Your task to perform on an android device: Open display settings Image 0: 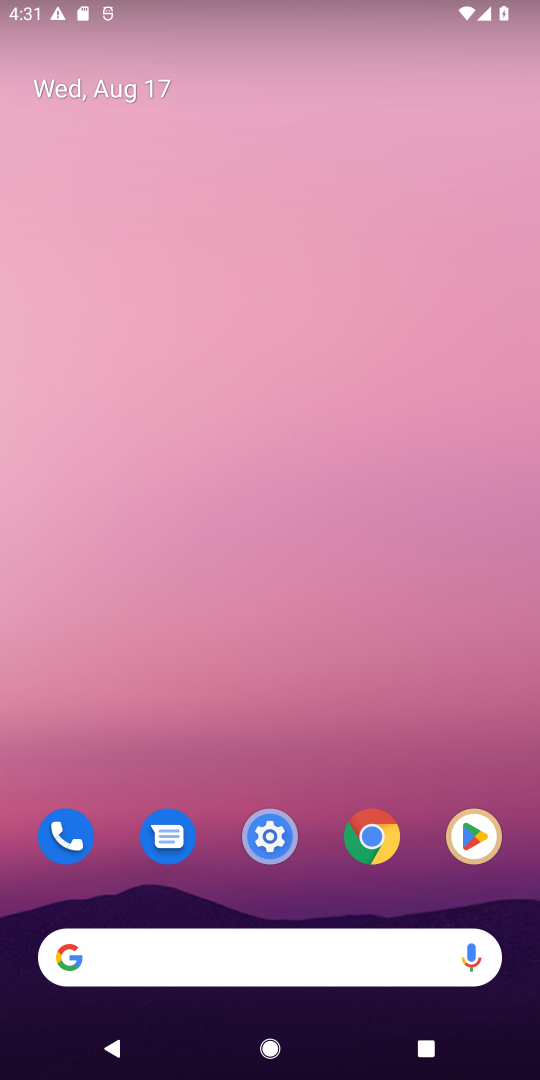
Step 0: click (257, 838)
Your task to perform on an android device: Open display settings Image 1: 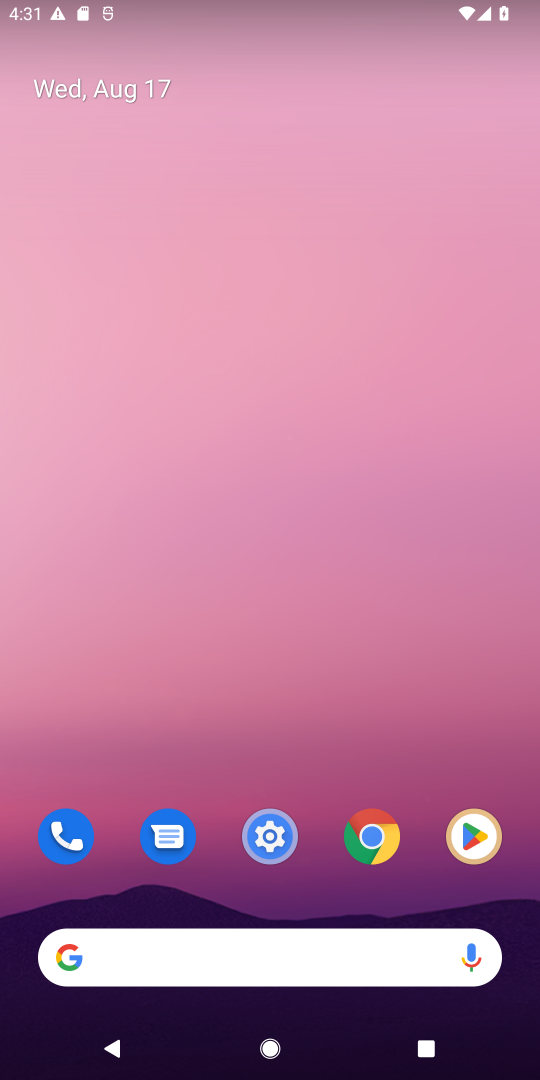
Step 1: click (267, 841)
Your task to perform on an android device: Open display settings Image 2: 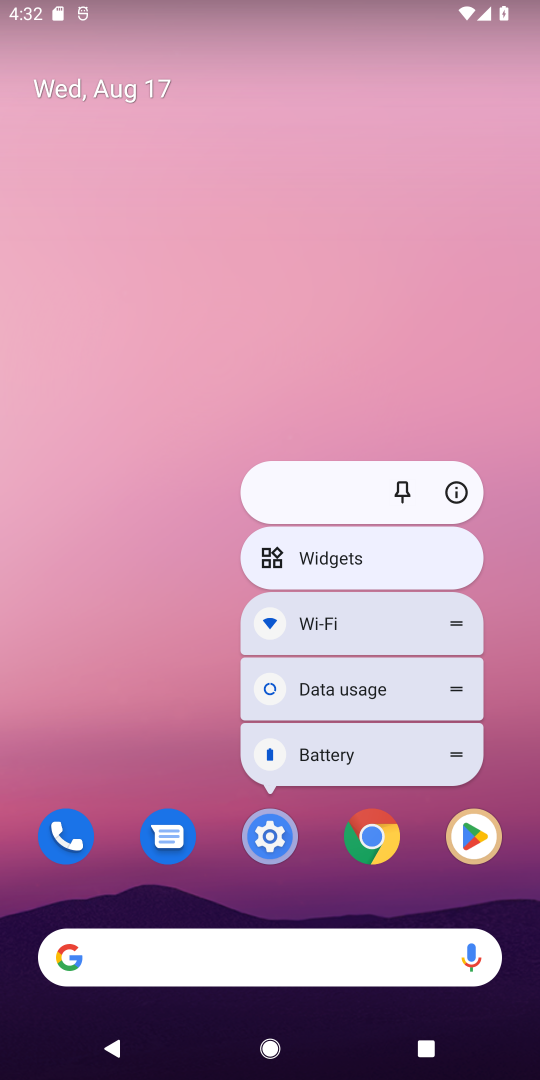
Step 2: click (267, 845)
Your task to perform on an android device: Open display settings Image 3: 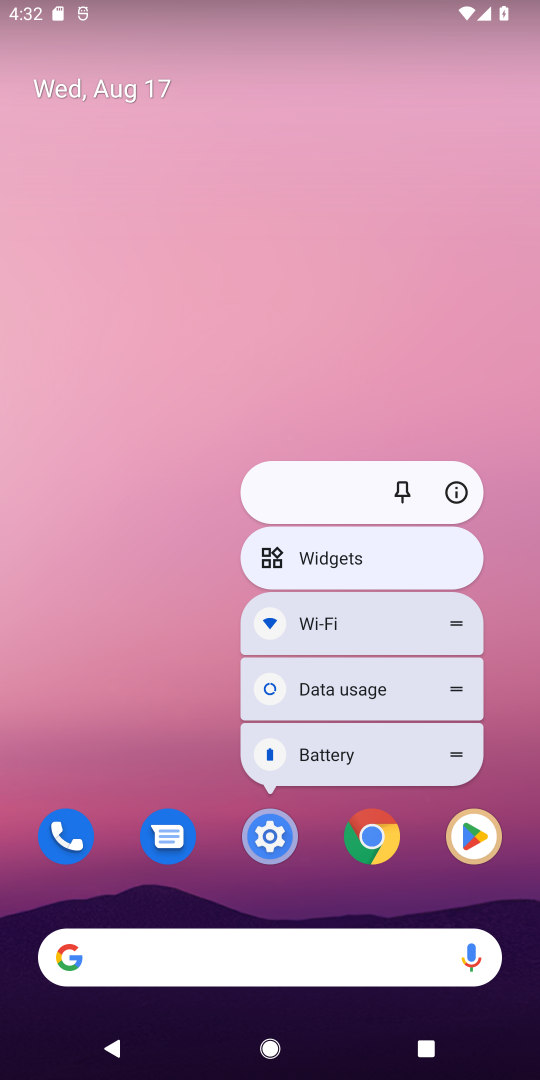
Step 3: click (267, 841)
Your task to perform on an android device: Open display settings Image 4: 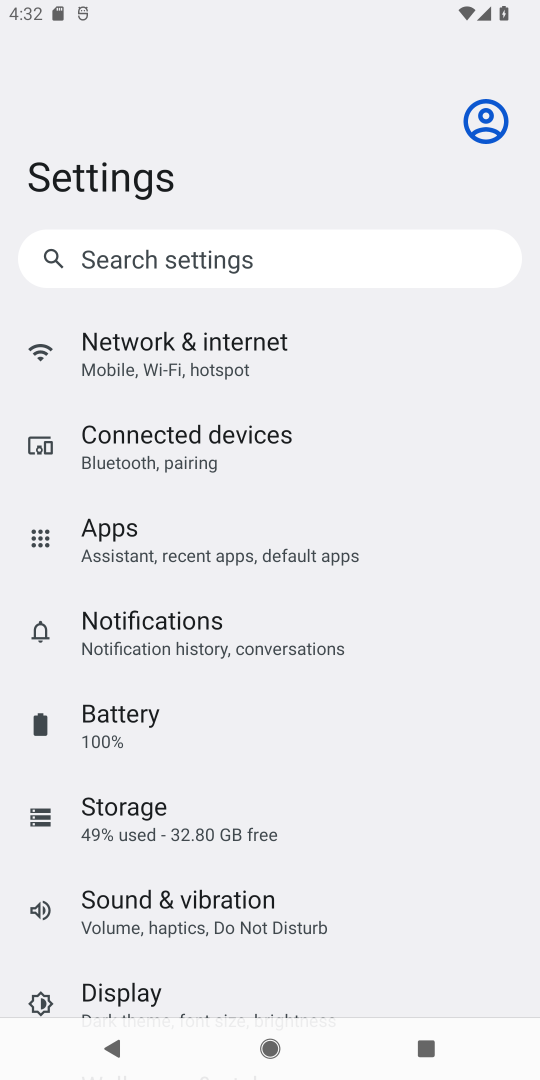
Step 4: drag from (427, 887) to (363, 145)
Your task to perform on an android device: Open display settings Image 5: 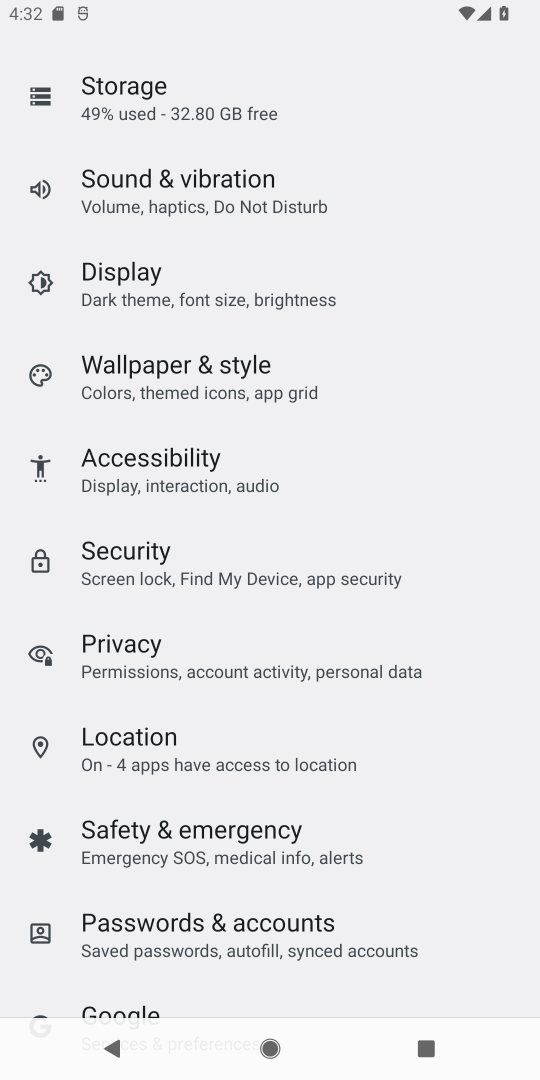
Step 5: click (128, 292)
Your task to perform on an android device: Open display settings Image 6: 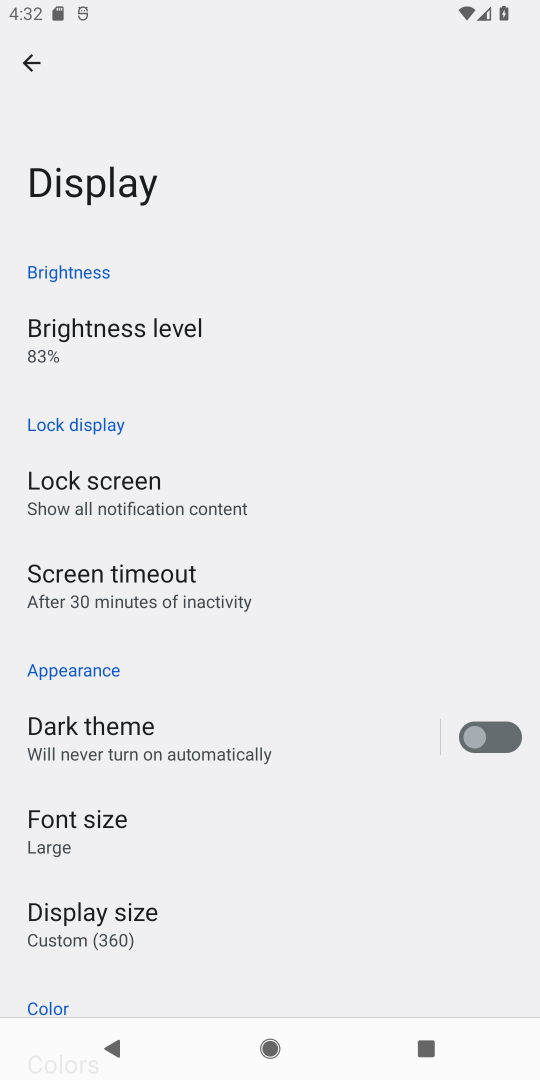
Step 6: task complete